Your task to perform on an android device: Show me productivity apps on the Play Store Image 0: 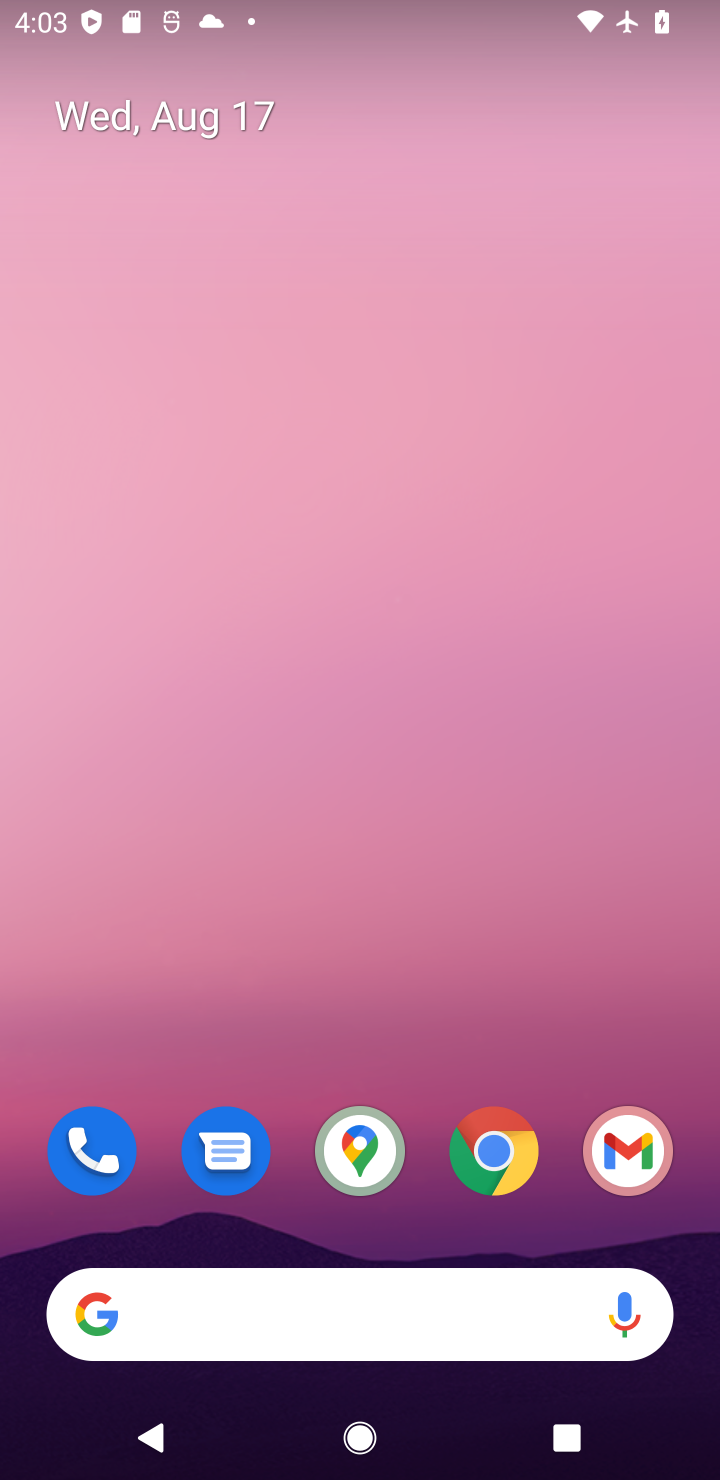
Step 0: drag from (286, 1327) to (307, 294)
Your task to perform on an android device: Show me productivity apps on the Play Store Image 1: 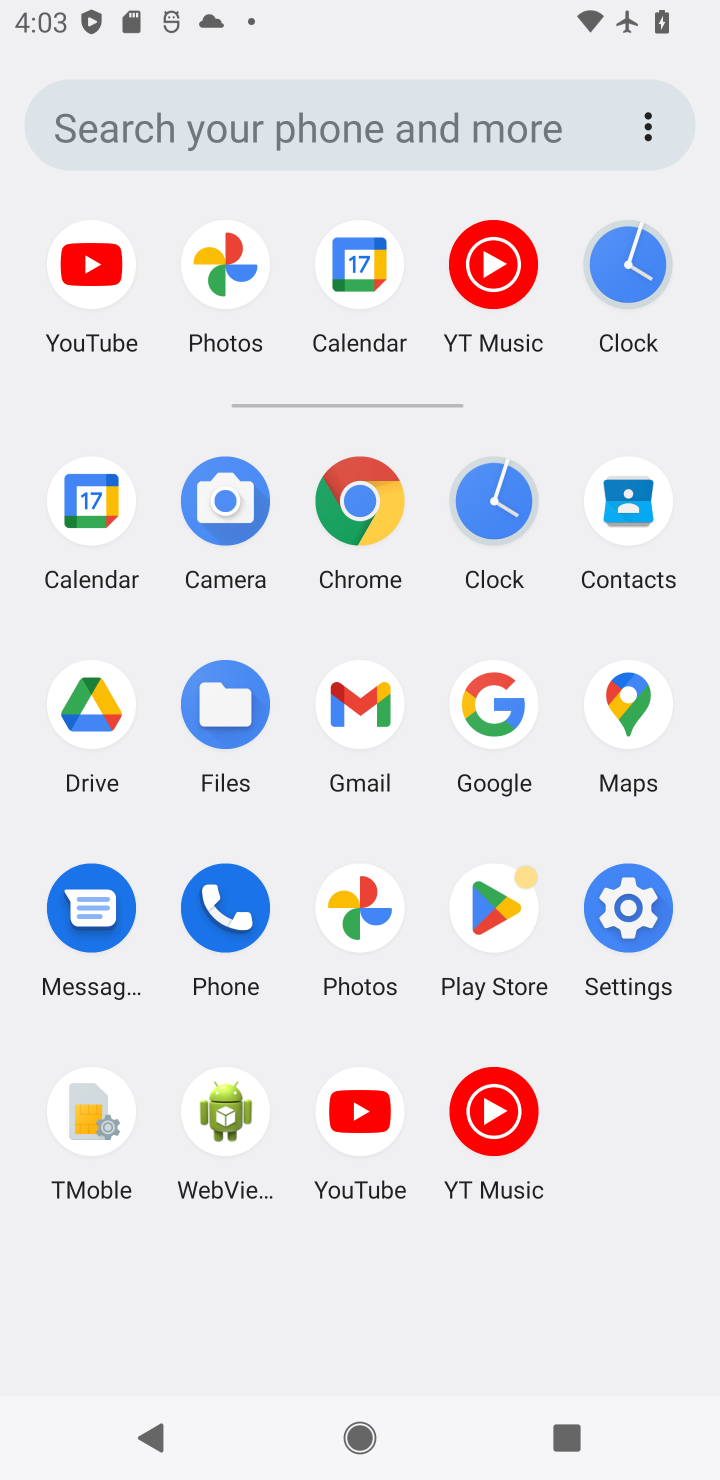
Step 1: click (491, 888)
Your task to perform on an android device: Show me productivity apps on the Play Store Image 2: 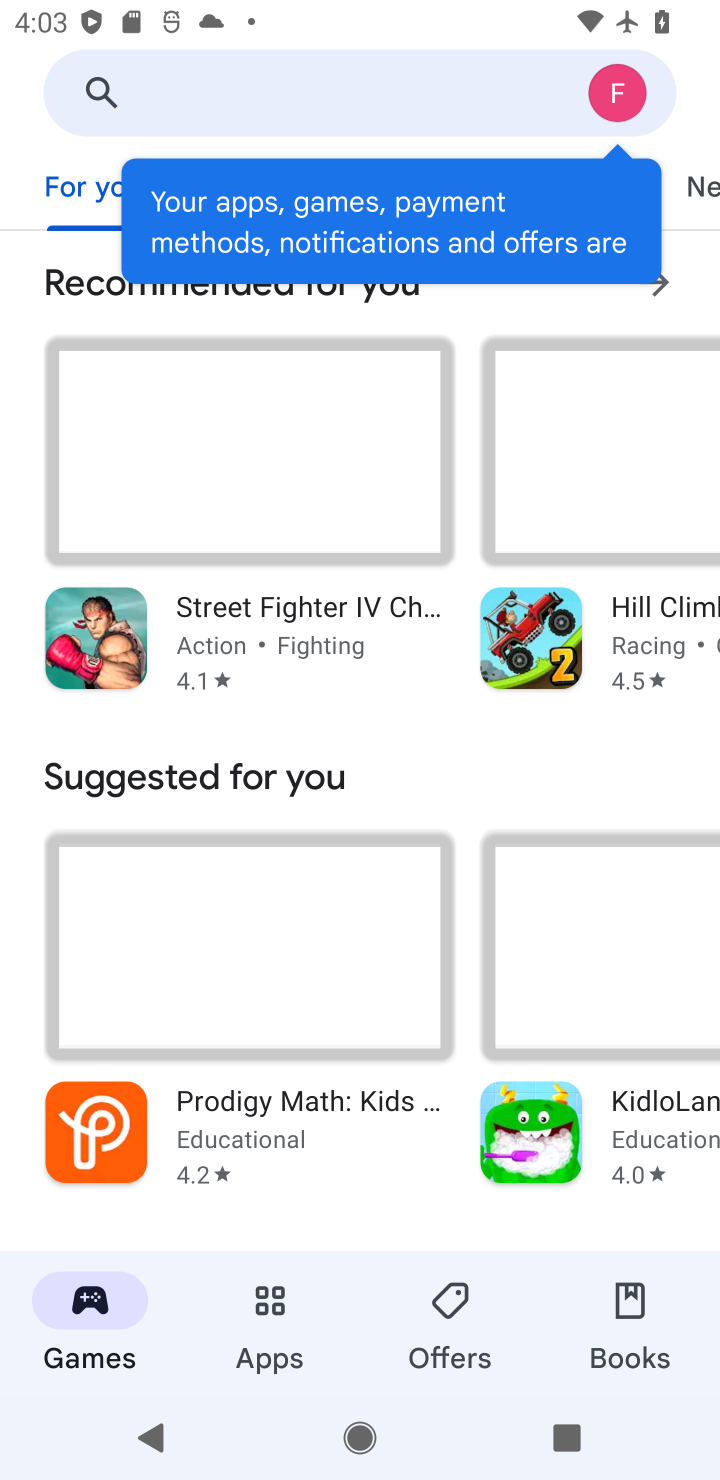
Step 2: click (279, 1289)
Your task to perform on an android device: Show me productivity apps on the Play Store Image 3: 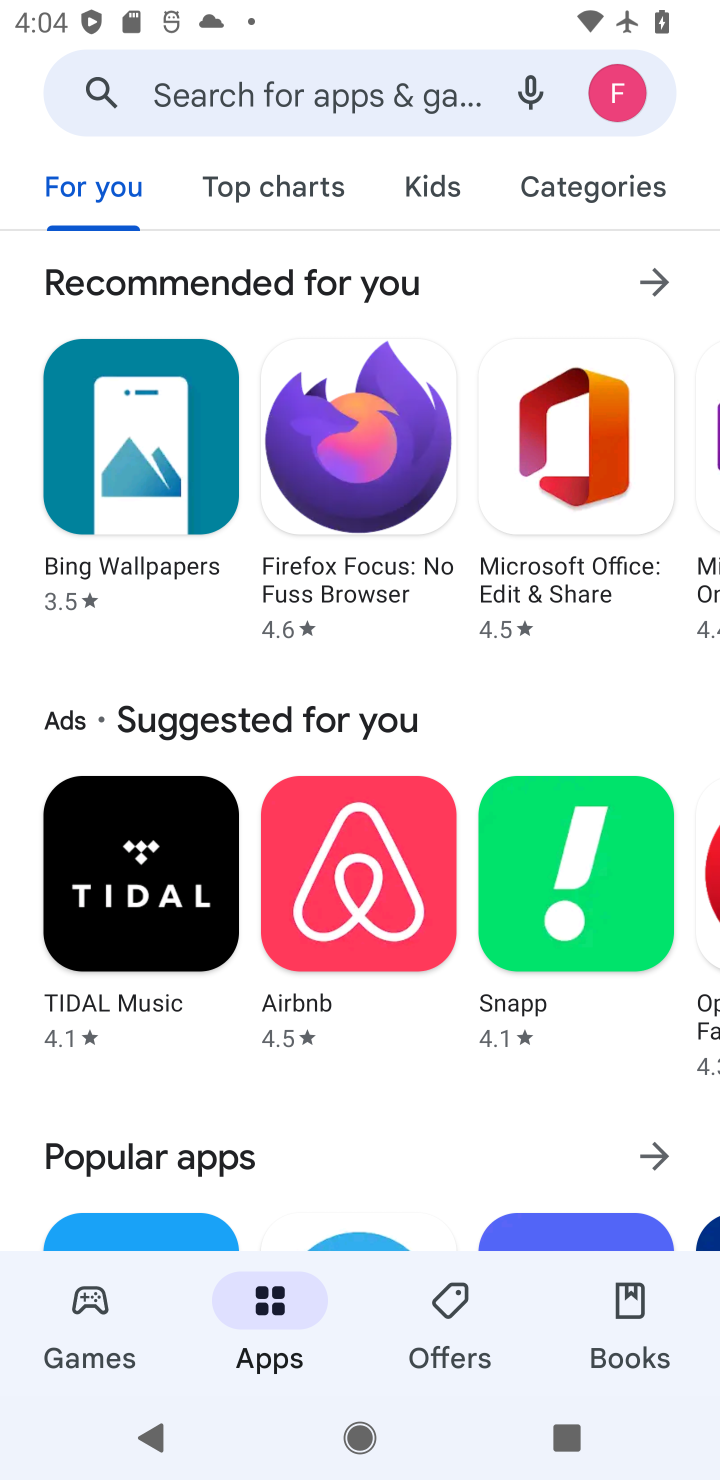
Step 3: click (248, 1311)
Your task to perform on an android device: Show me productivity apps on the Play Store Image 4: 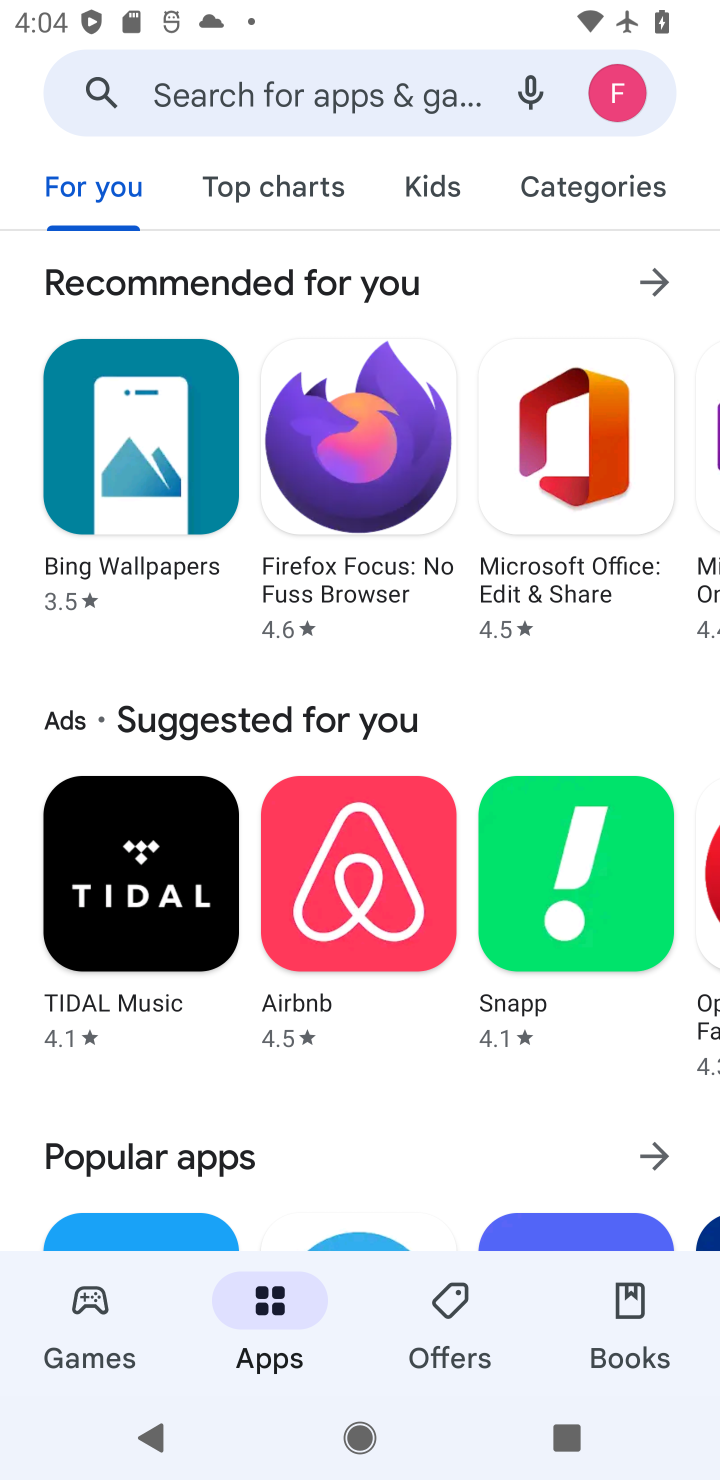
Step 4: task complete